Your task to perform on an android device: Go to settings Image 0: 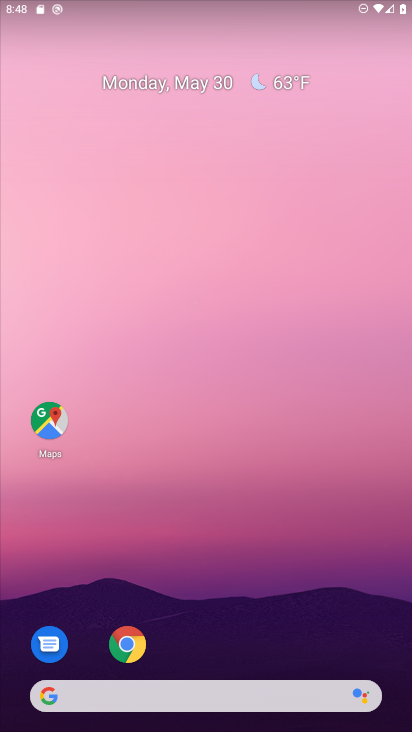
Step 0: drag from (201, 644) to (215, 118)
Your task to perform on an android device: Go to settings Image 1: 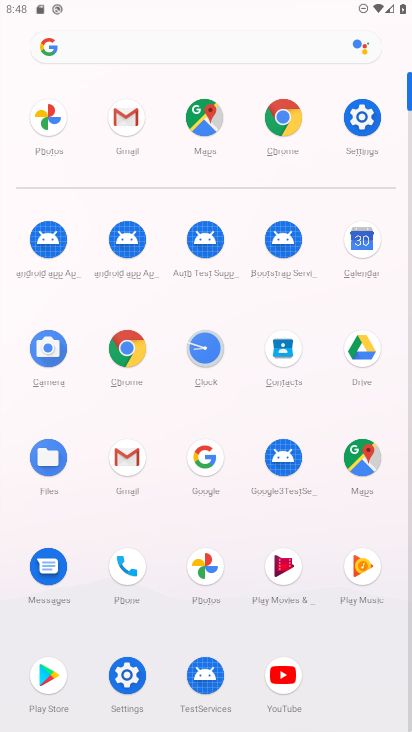
Step 1: click (367, 114)
Your task to perform on an android device: Go to settings Image 2: 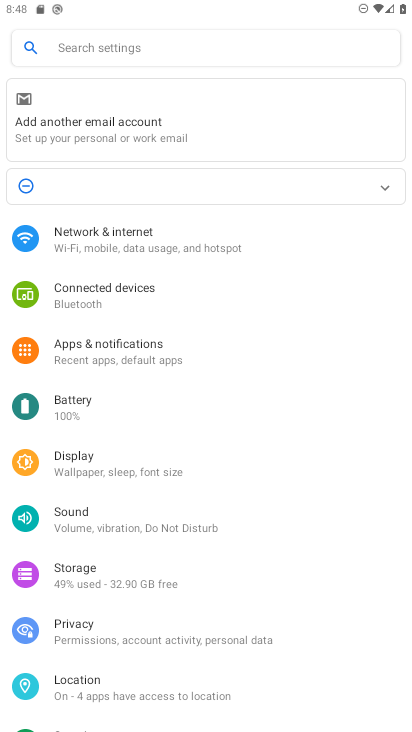
Step 2: task complete